Your task to perform on an android device: turn on the 24-hour format for clock Image 0: 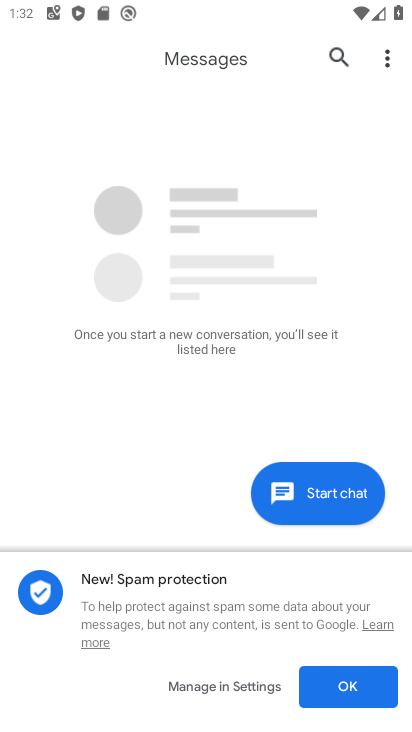
Step 0: drag from (331, 613) to (295, 49)
Your task to perform on an android device: turn on the 24-hour format for clock Image 1: 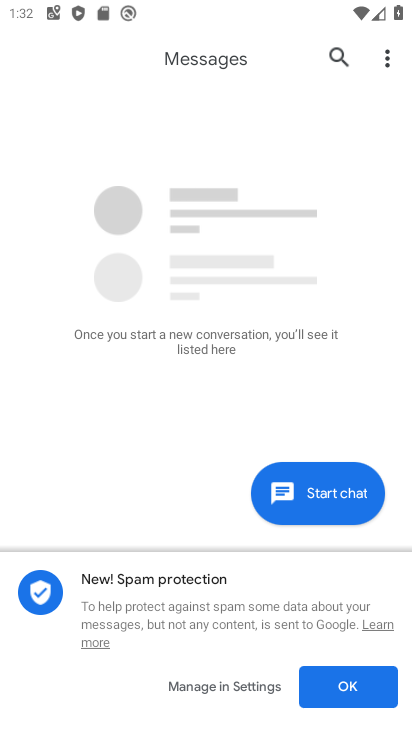
Step 1: press home button
Your task to perform on an android device: turn on the 24-hour format for clock Image 2: 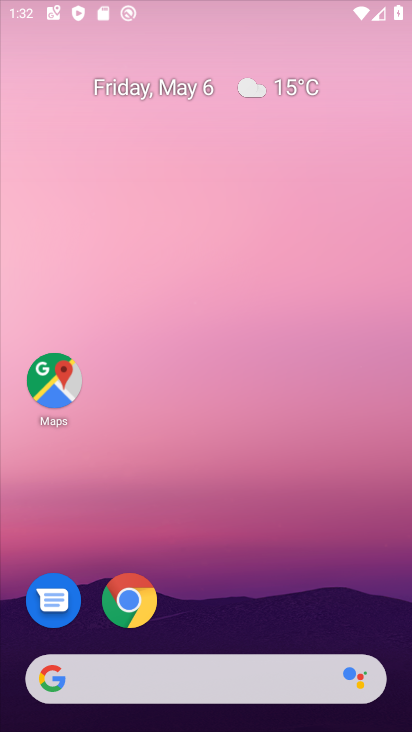
Step 2: drag from (301, 606) to (319, 11)
Your task to perform on an android device: turn on the 24-hour format for clock Image 3: 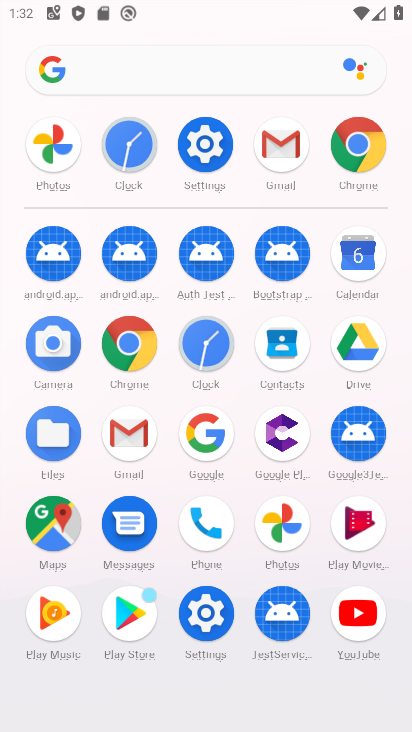
Step 3: click (196, 341)
Your task to perform on an android device: turn on the 24-hour format for clock Image 4: 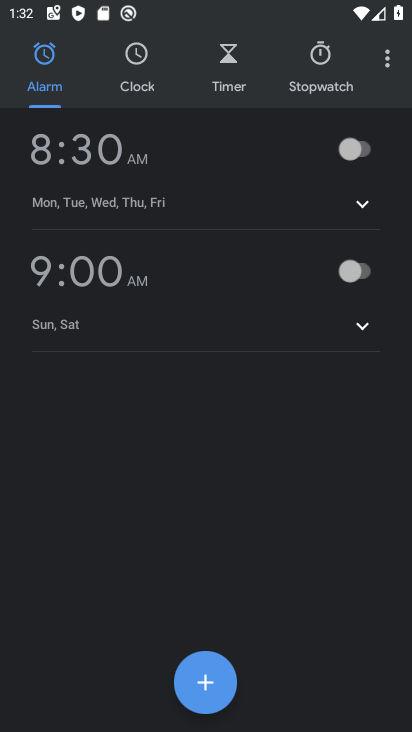
Step 4: click (383, 57)
Your task to perform on an android device: turn on the 24-hour format for clock Image 5: 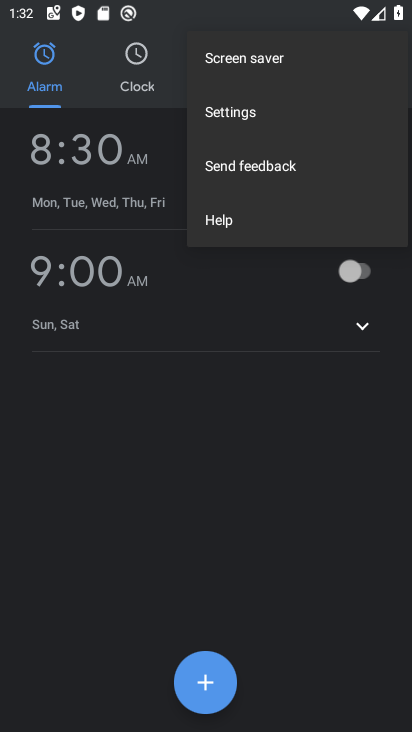
Step 5: click (263, 112)
Your task to perform on an android device: turn on the 24-hour format for clock Image 6: 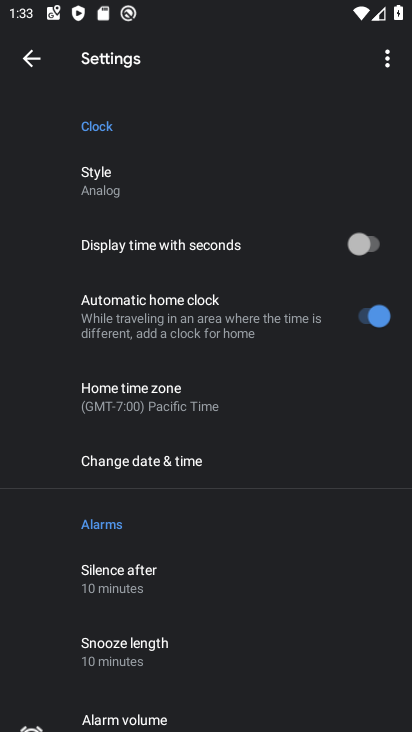
Step 6: click (147, 469)
Your task to perform on an android device: turn on the 24-hour format for clock Image 7: 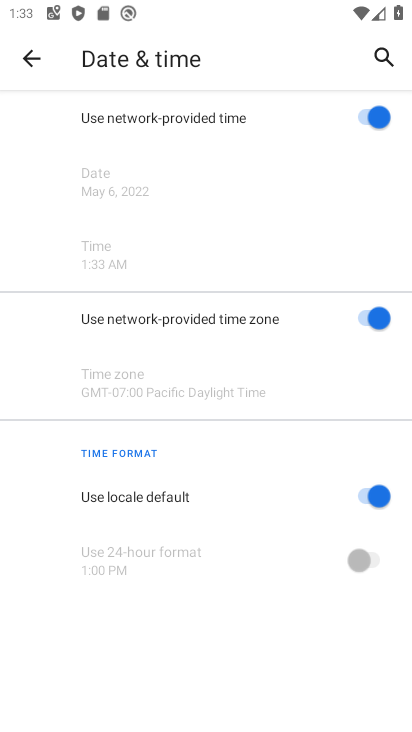
Step 7: task complete